Your task to perform on an android device: uninstall "Grab" Image 0: 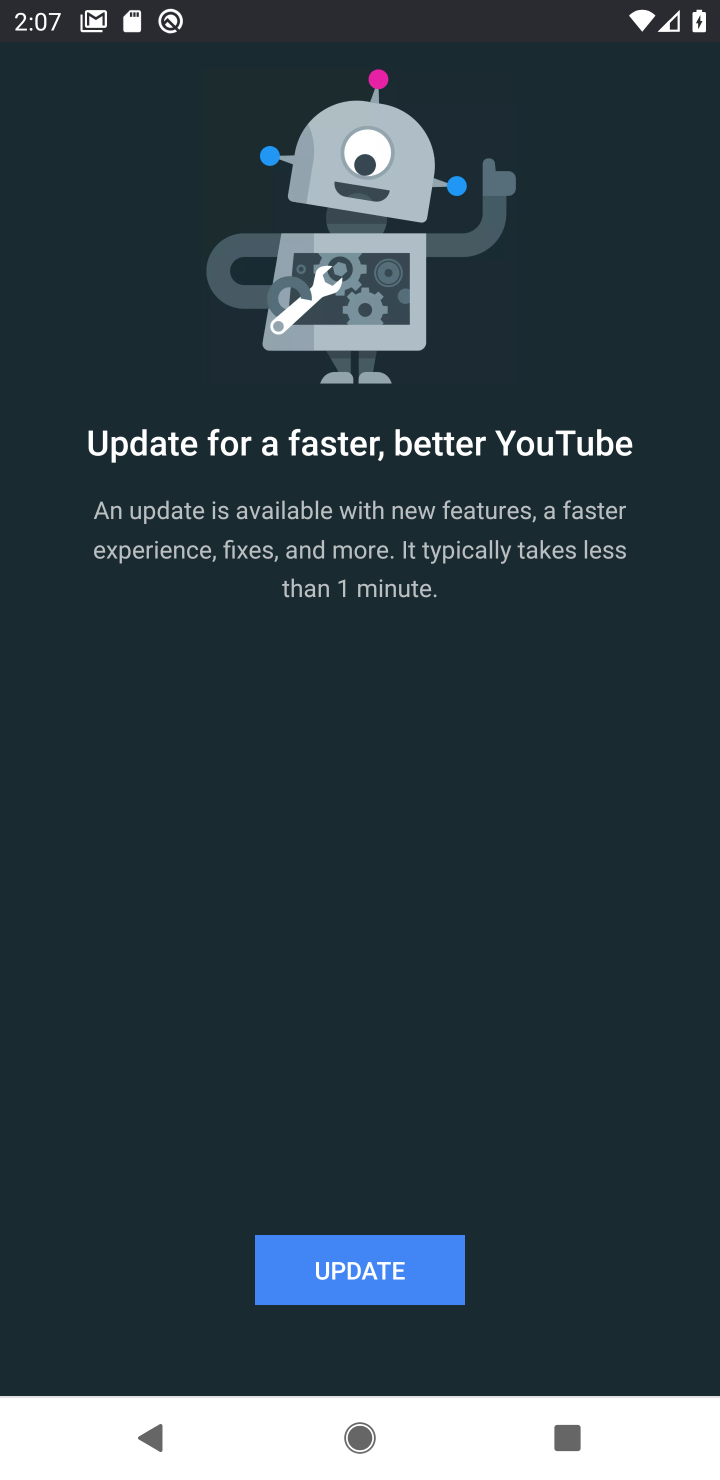
Step 0: press home button
Your task to perform on an android device: uninstall "Grab" Image 1: 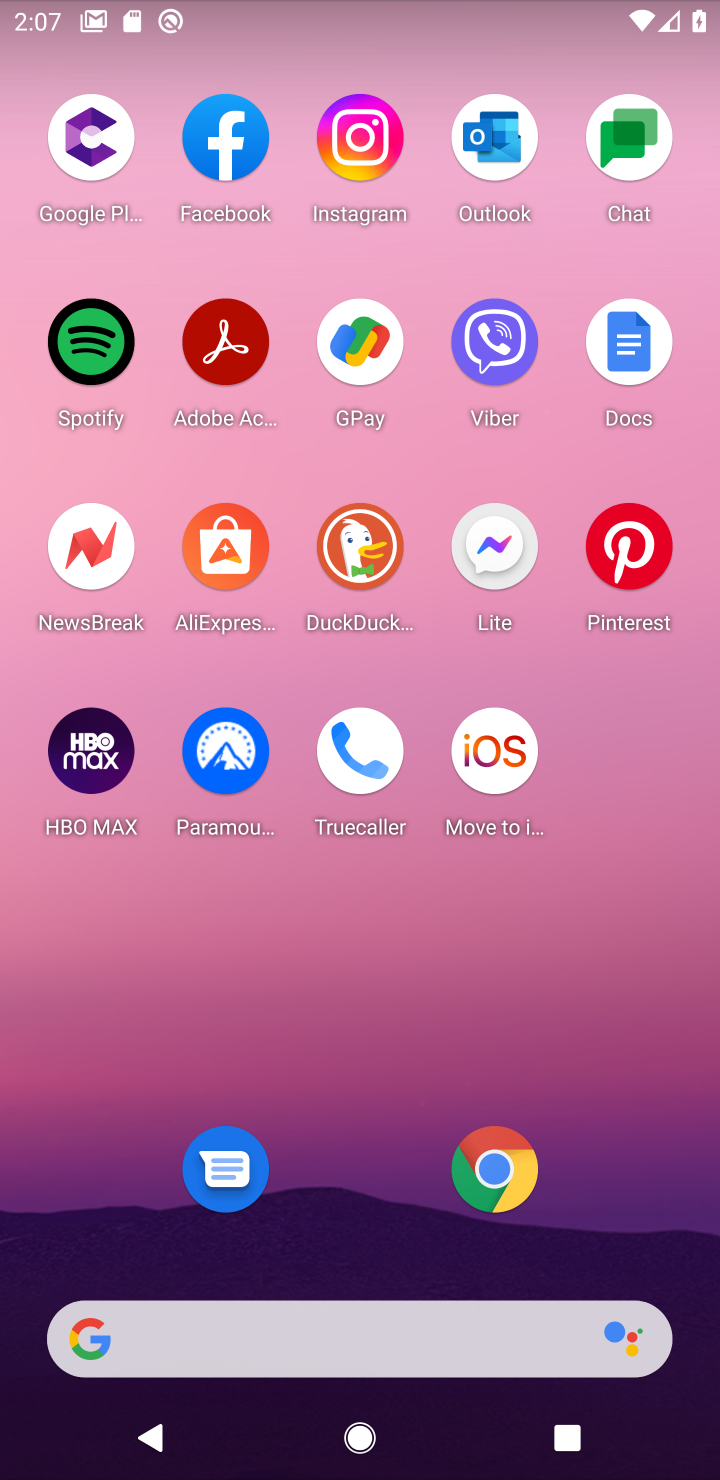
Step 1: press home button
Your task to perform on an android device: uninstall "Grab" Image 2: 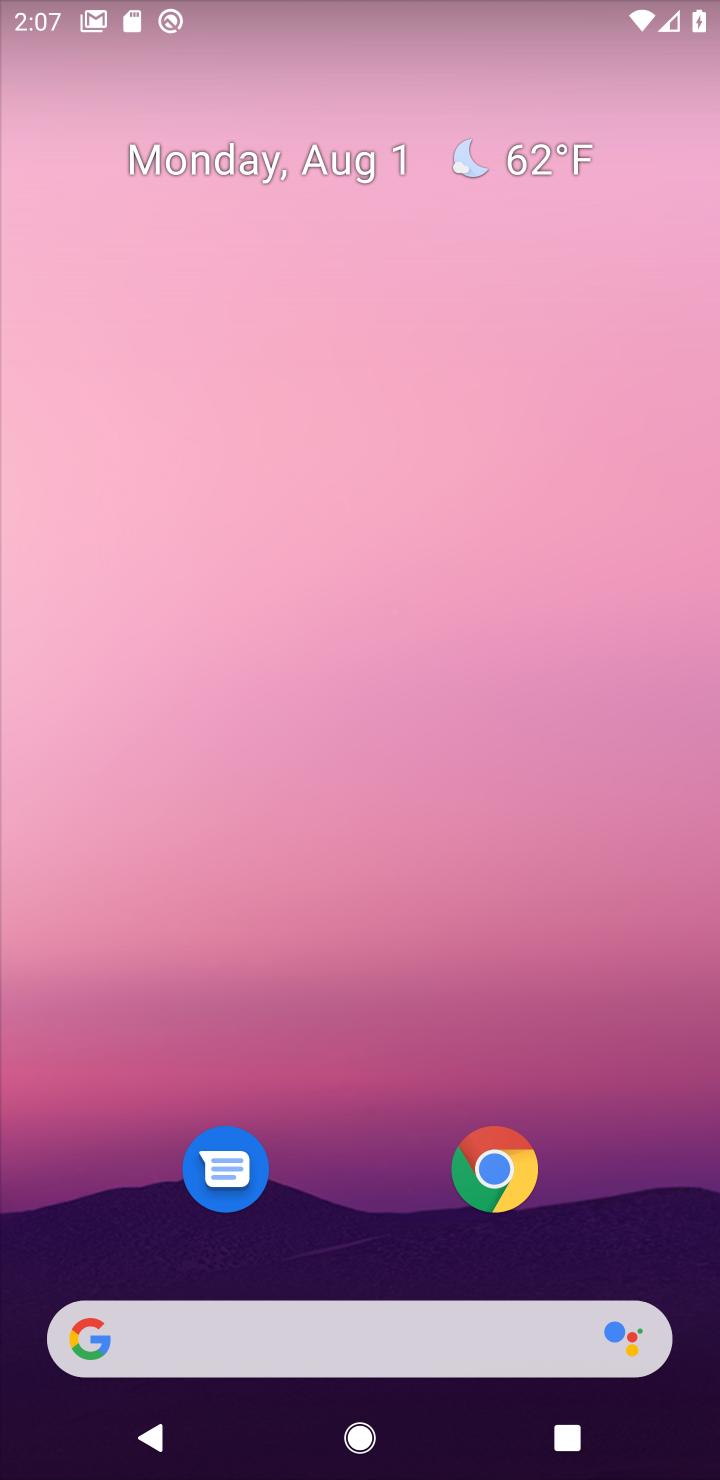
Step 2: drag from (308, 847) to (284, 126)
Your task to perform on an android device: uninstall "Grab" Image 3: 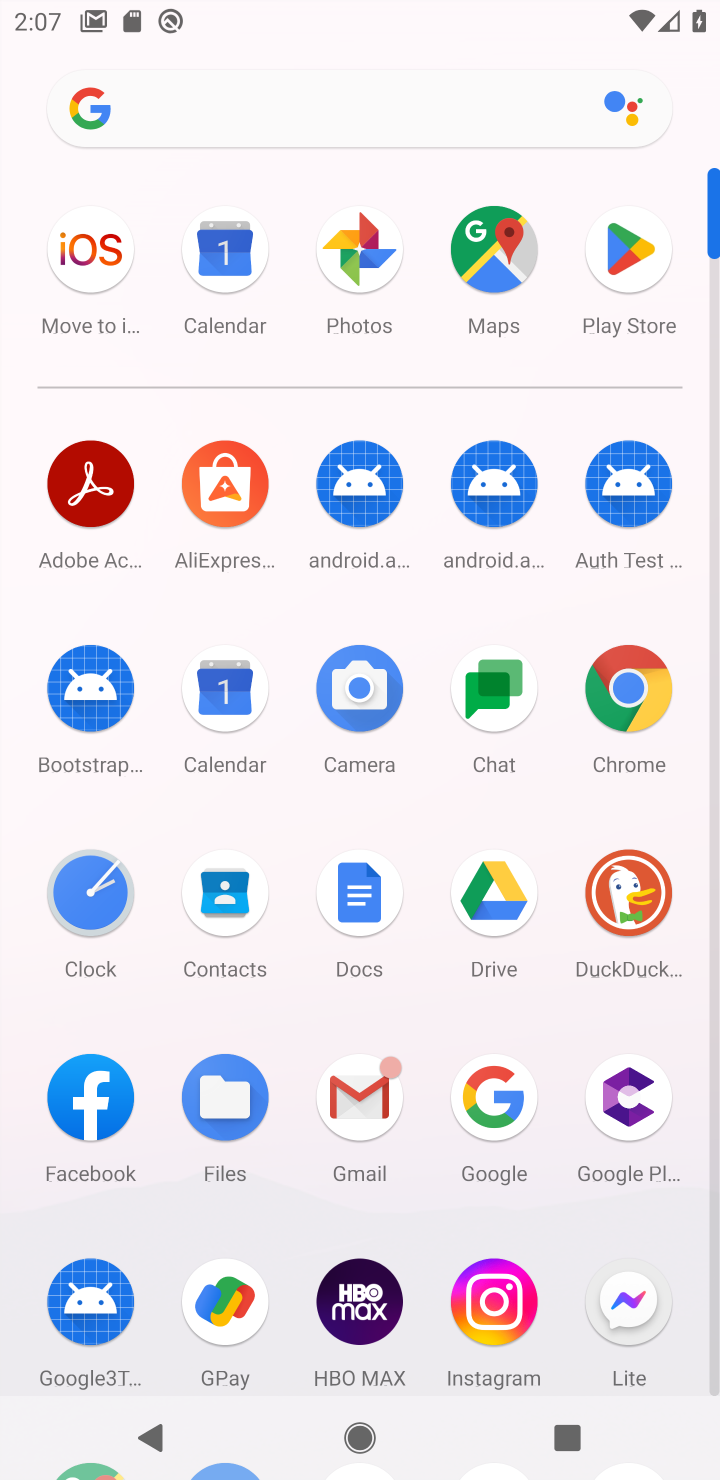
Step 3: click (631, 286)
Your task to perform on an android device: uninstall "Grab" Image 4: 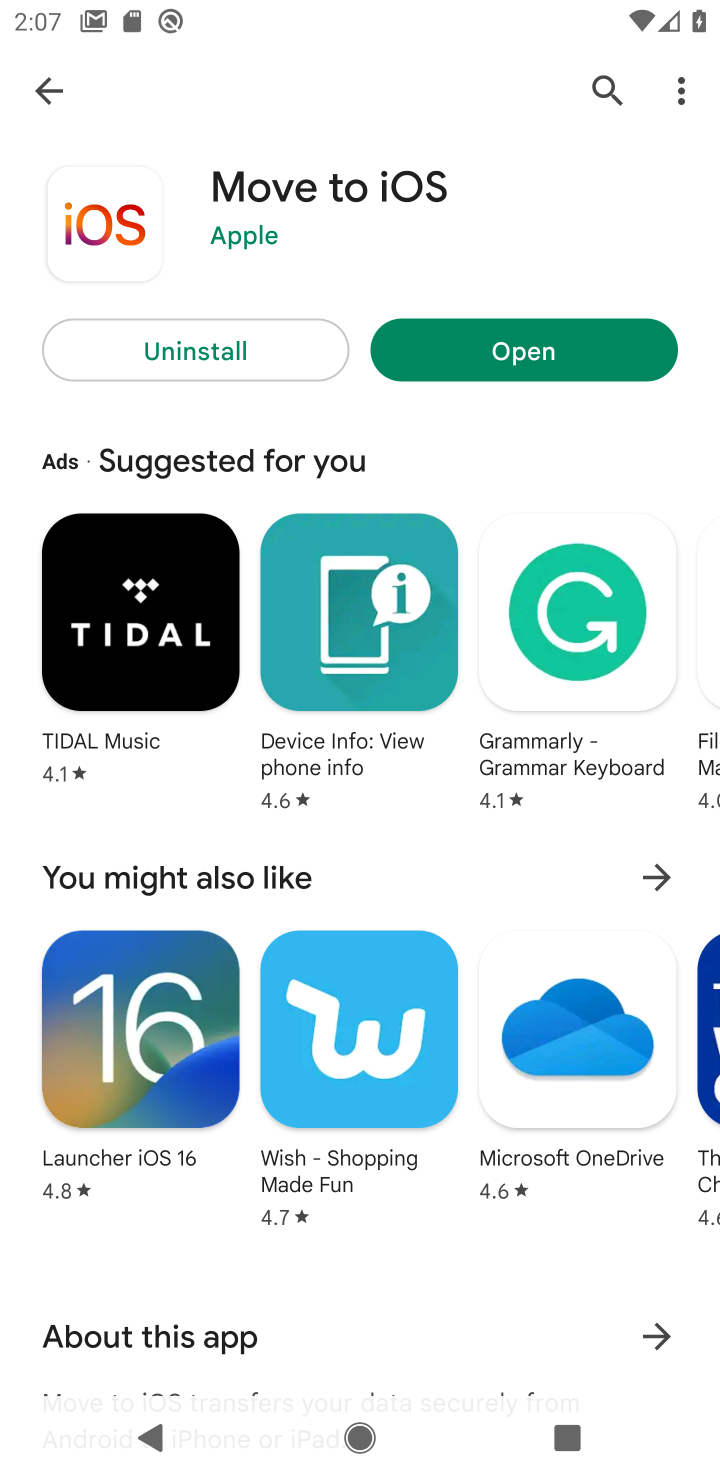
Step 4: click (47, 62)
Your task to perform on an android device: uninstall "Grab" Image 5: 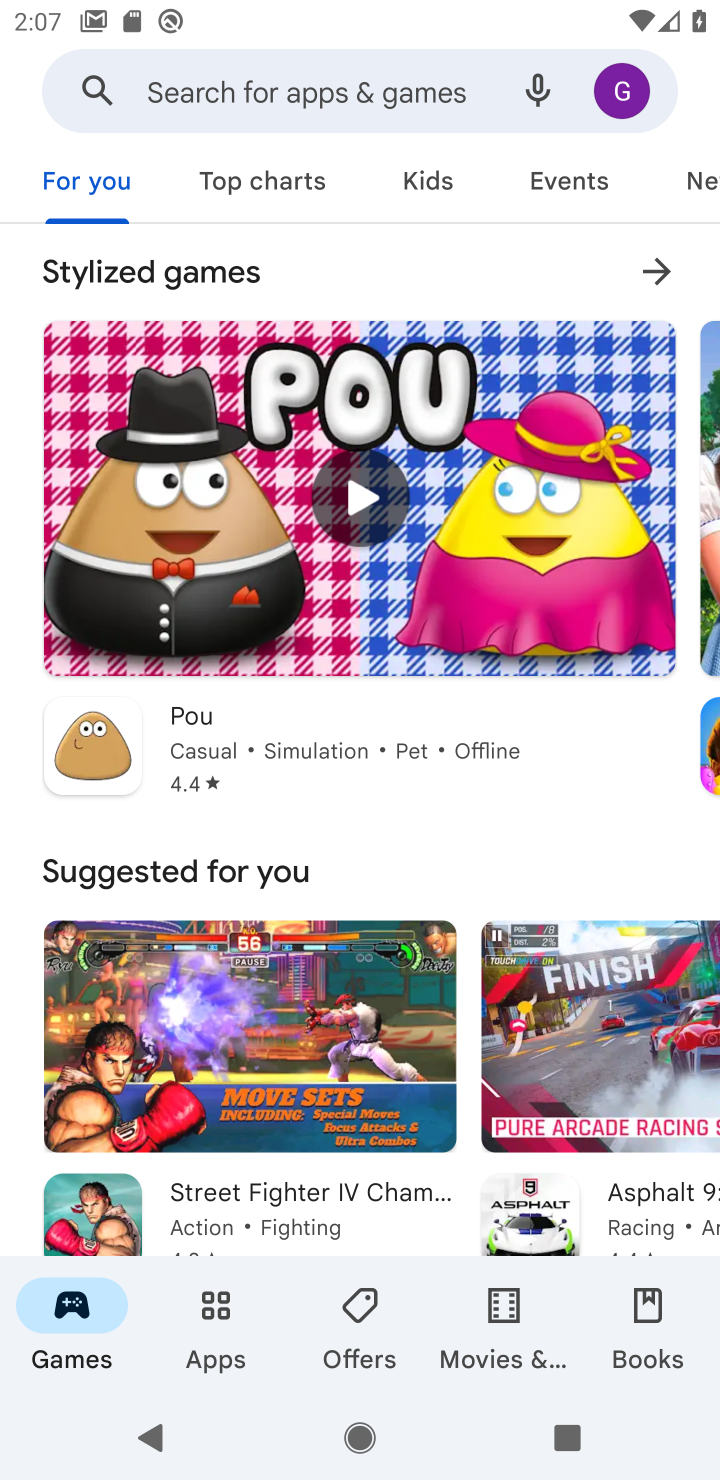
Step 5: click (145, 95)
Your task to perform on an android device: uninstall "Grab" Image 6: 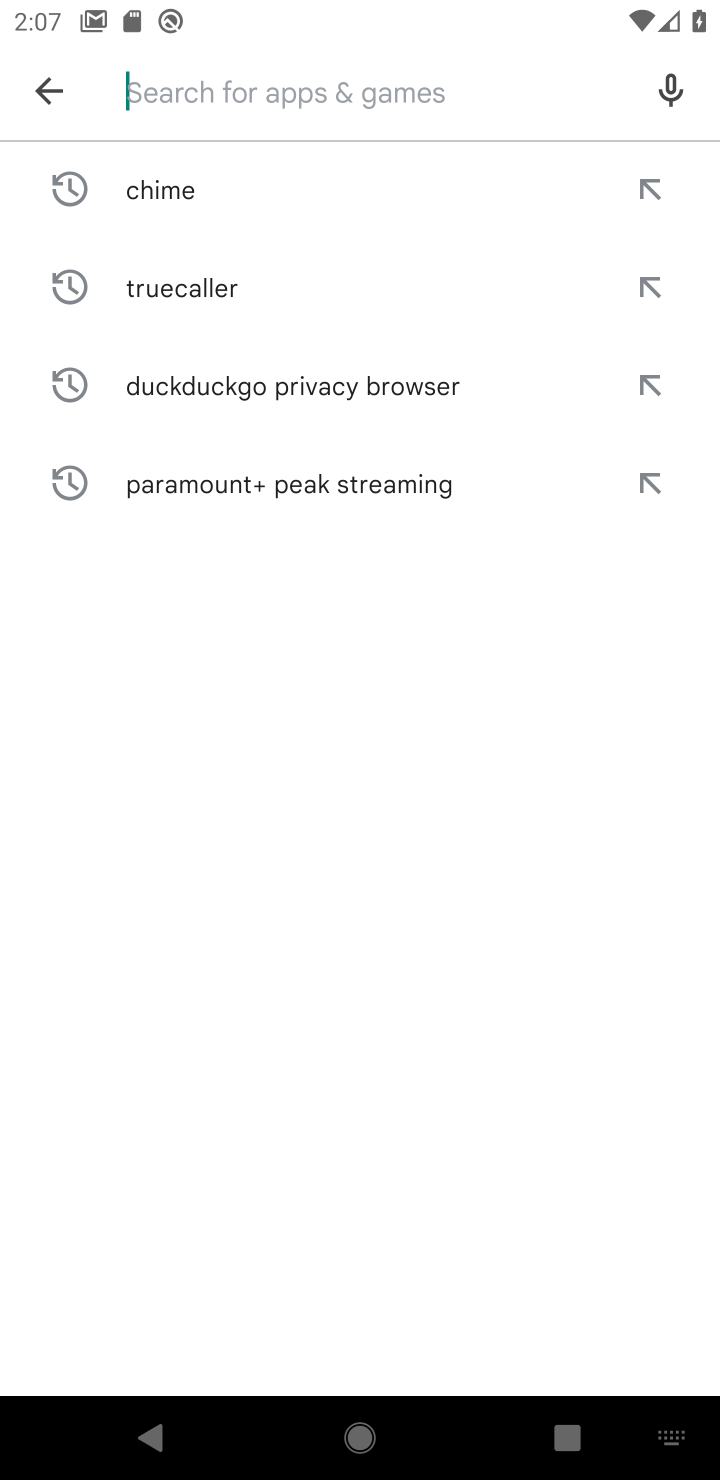
Step 6: type "Grab"
Your task to perform on an android device: uninstall "Grab" Image 7: 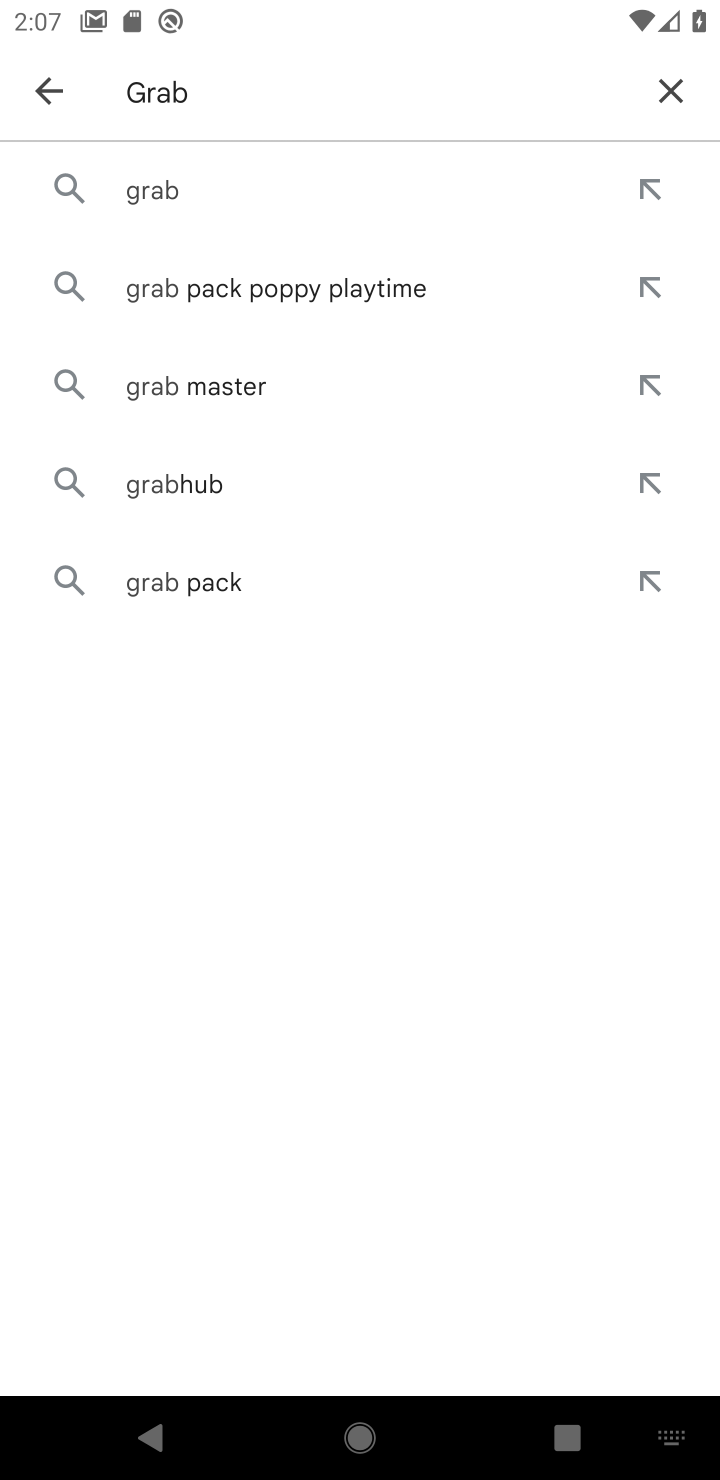
Step 7: click (150, 195)
Your task to perform on an android device: uninstall "Grab" Image 8: 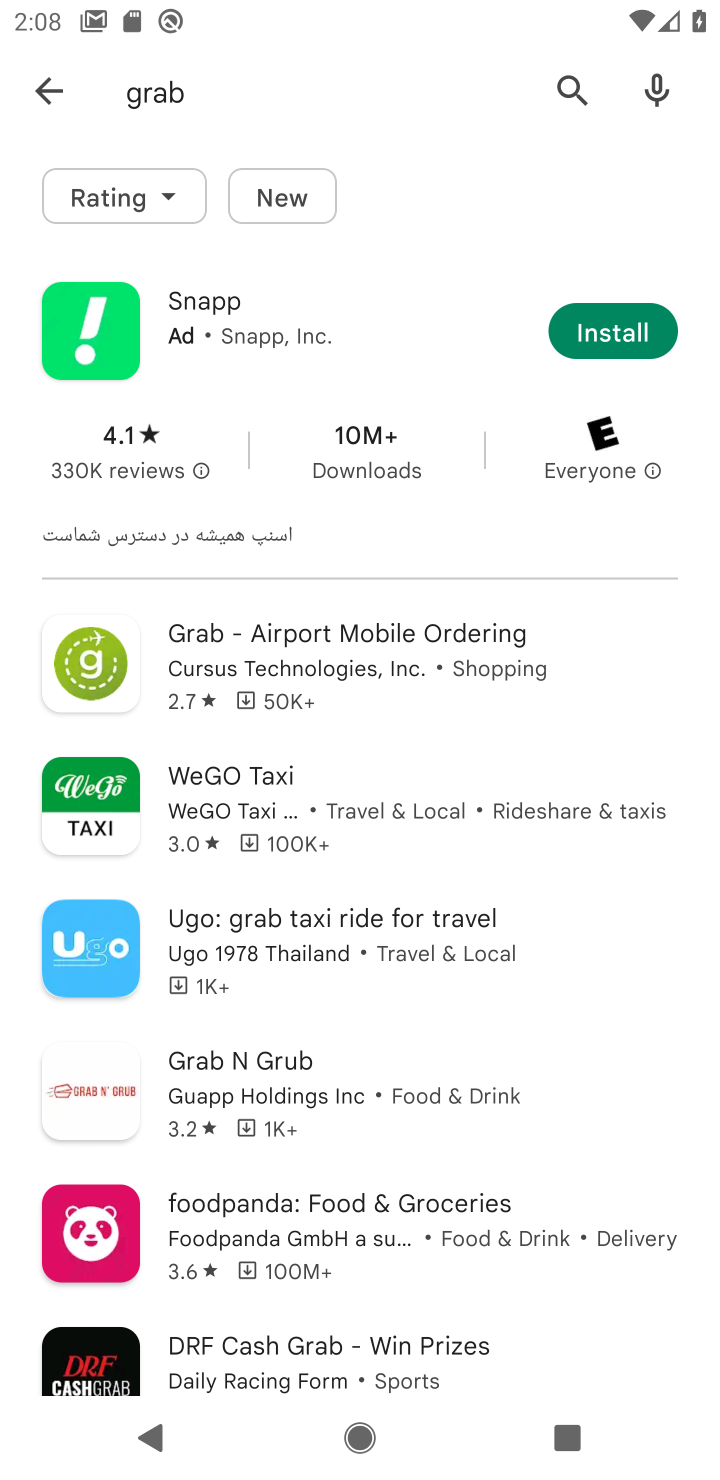
Step 8: task complete